Your task to perform on an android device: turn off airplane mode Image 0: 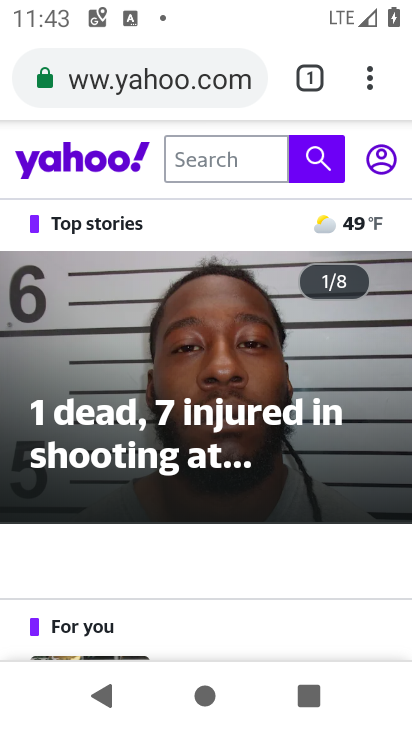
Step 0: press home button
Your task to perform on an android device: turn off airplane mode Image 1: 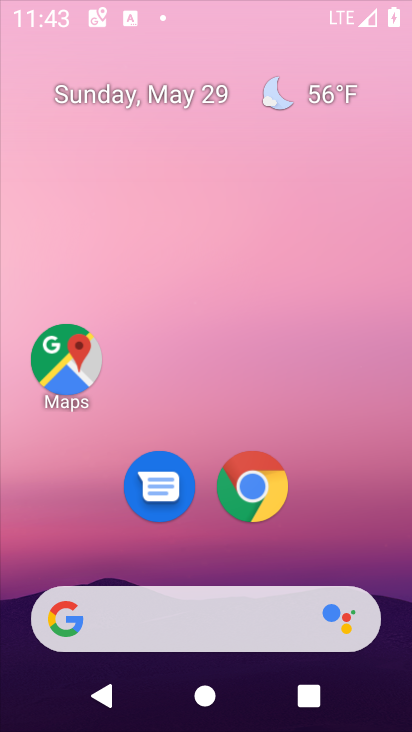
Step 1: drag from (280, 609) to (334, 138)
Your task to perform on an android device: turn off airplane mode Image 2: 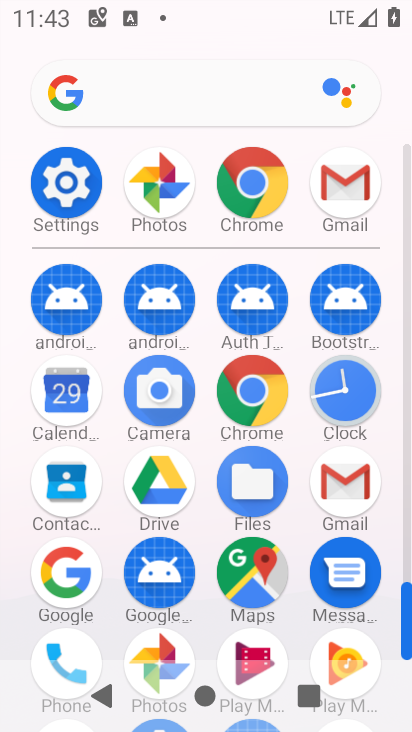
Step 2: click (73, 205)
Your task to perform on an android device: turn off airplane mode Image 3: 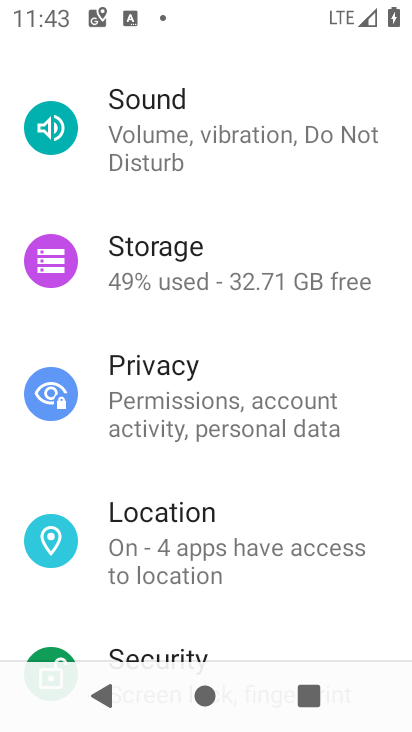
Step 3: drag from (311, 259) to (264, 650)
Your task to perform on an android device: turn off airplane mode Image 4: 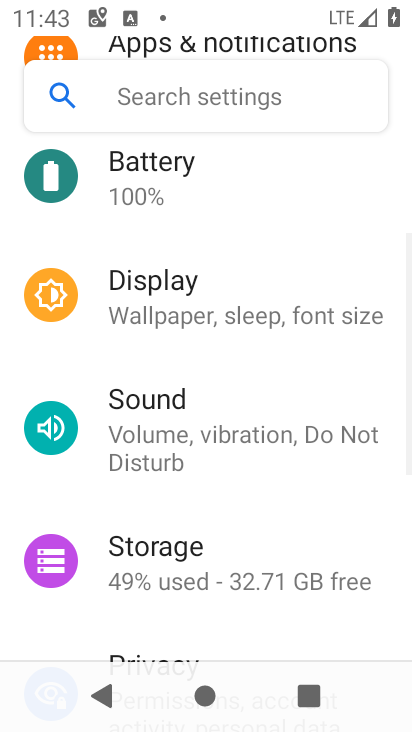
Step 4: drag from (293, 292) to (288, 635)
Your task to perform on an android device: turn off airplane mode Image 5: 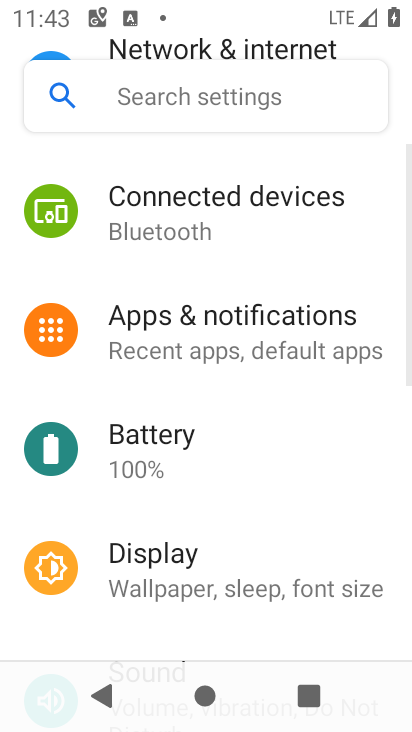
Step 5: drag from (265, 283) to (232, 666)
Your task to perform on an android device: turn off airplane mode Image 6: 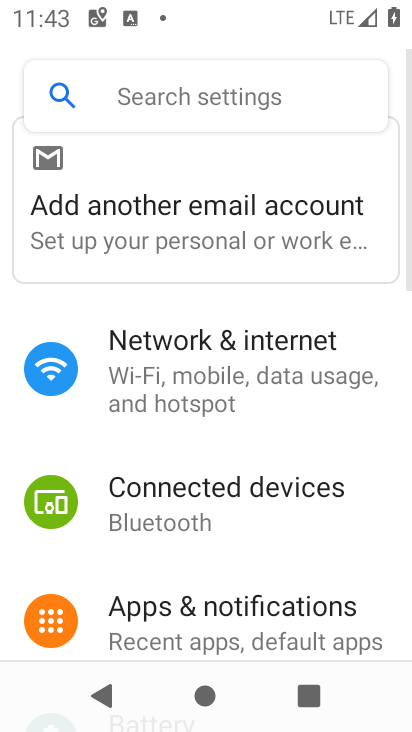
Step 6: drag from (267, 369) to (244, 610)
Your task to perform on an android device: turn off airplane mode Image 7: 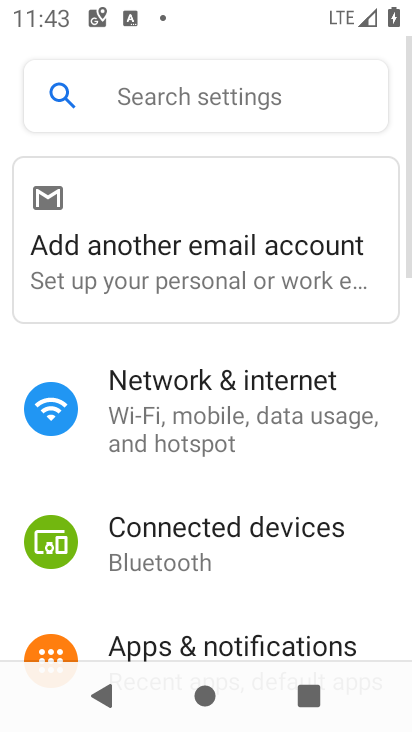
Step 7: click (282, 434)
Your task to perform on an android device: turn off airplane mode Image 8: 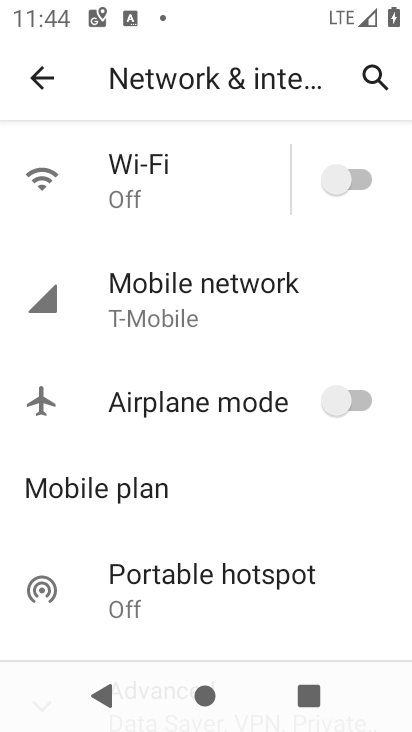
Step 8: task complete